Your task to perform on an android device: empty trash in google photos Image 0: 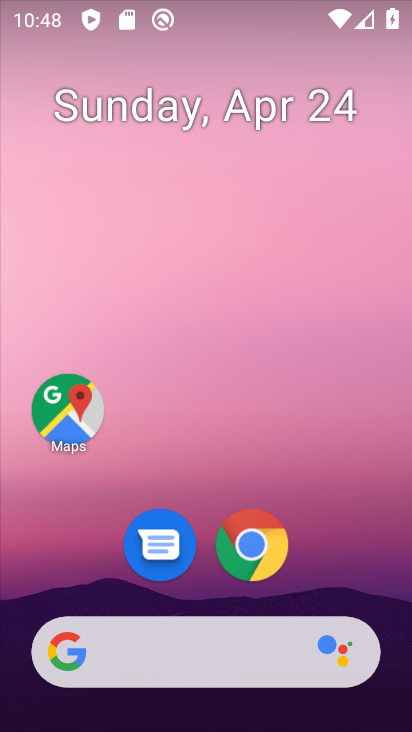
Step 0: drag from (292, 673) to (248, 167)
Your task to perform on an android device: empty trash in google photos Image 1: 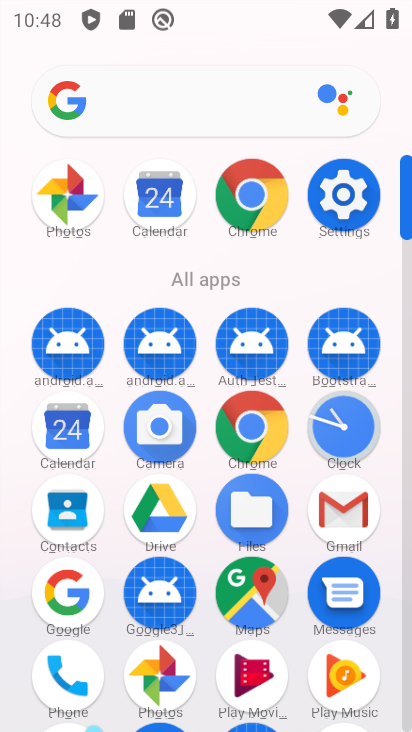
Step 1: click (154, 664)
Your task to perform on an android device: empty trash in google photos Image 2: 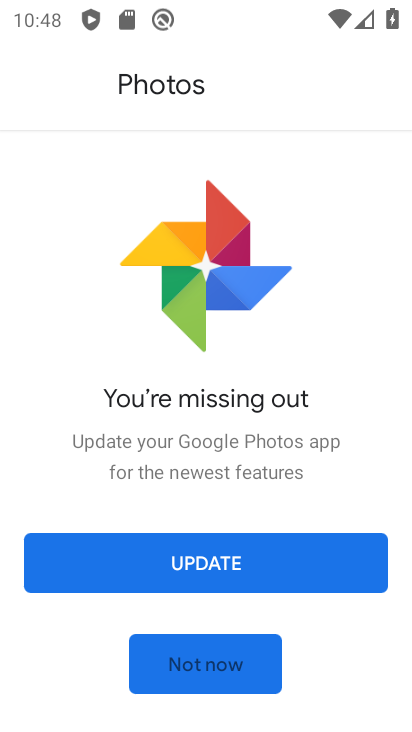
Step 2: click (191, 584)
Your task to perform on an android device: empty trash in google photos Image 3: 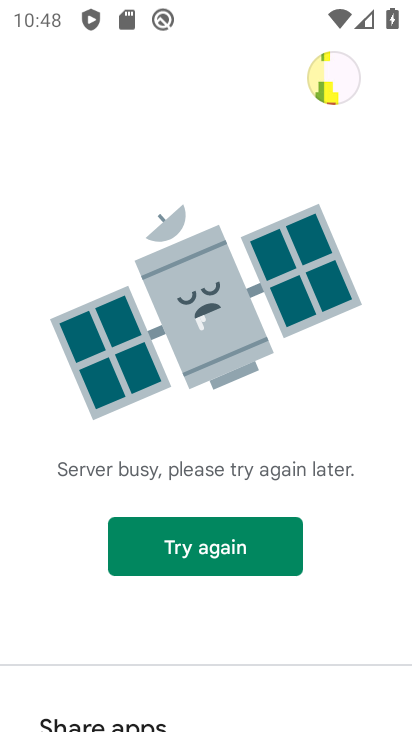
Step 3: press back button
Your task to perform on an android device: empty trash in google photos Image 4: 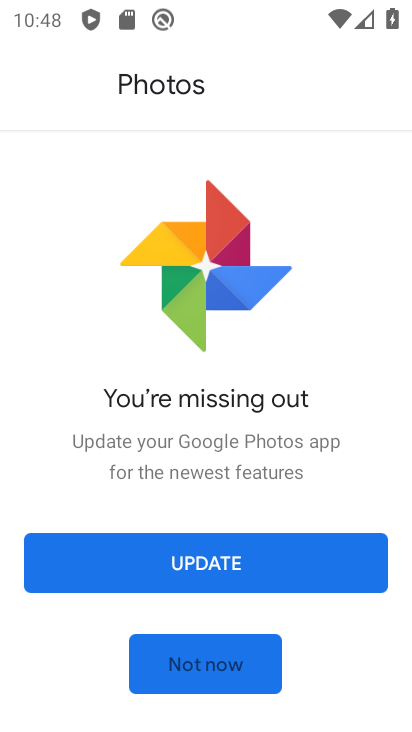
Step 4: click (175, 672)
Your task to perform on an android device: empty trash in google photos Image 5: 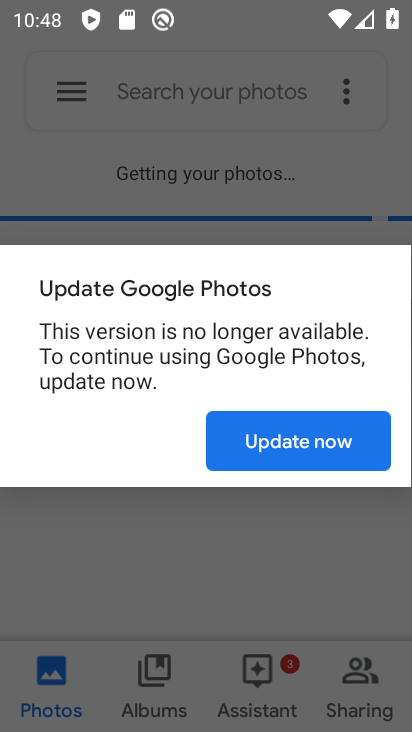
Step 5: click (260, 439)
Your task to perform on an android device: empty trash in google photos Image 6: 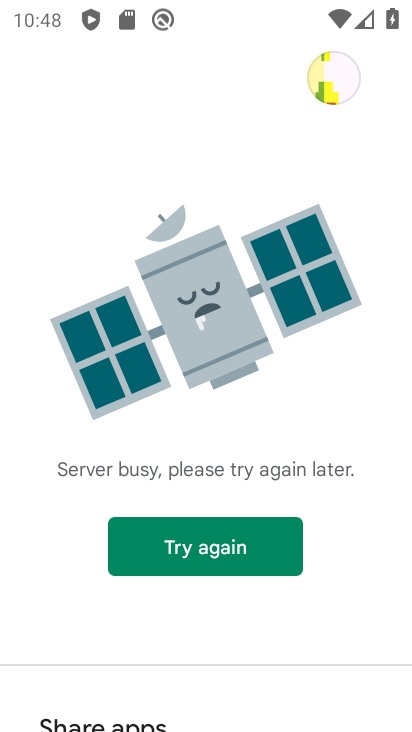
Step 6: press back button
Your task to perform on an android device: empty trash in google photos Image 7: 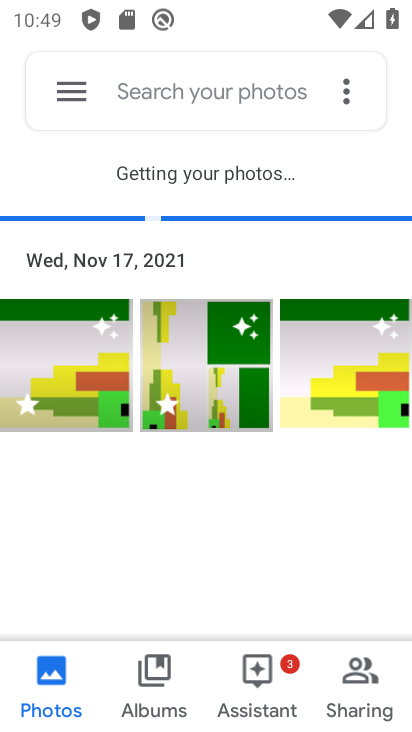
Step 7: click (52, 96)
Your task to perform on an android device: empty trash in google photos Image 8: 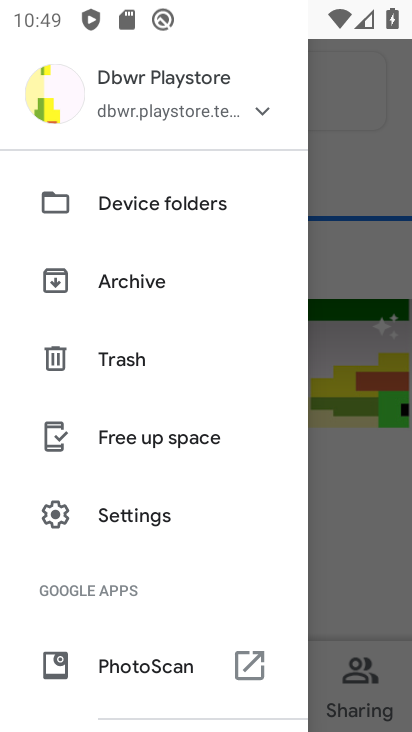
Step 8: click (116, 357)
Your task to perform on an android device: empty trash in google photos Image 9: 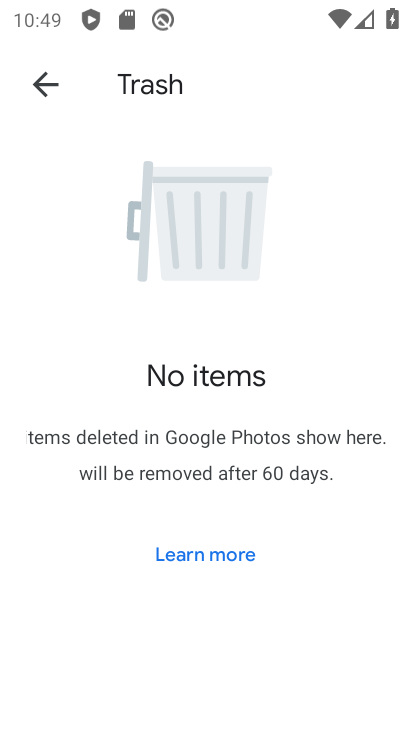
Step 9: task complete